Your task to perform on an android device: Clear the cart on bestbuy. Image 0: 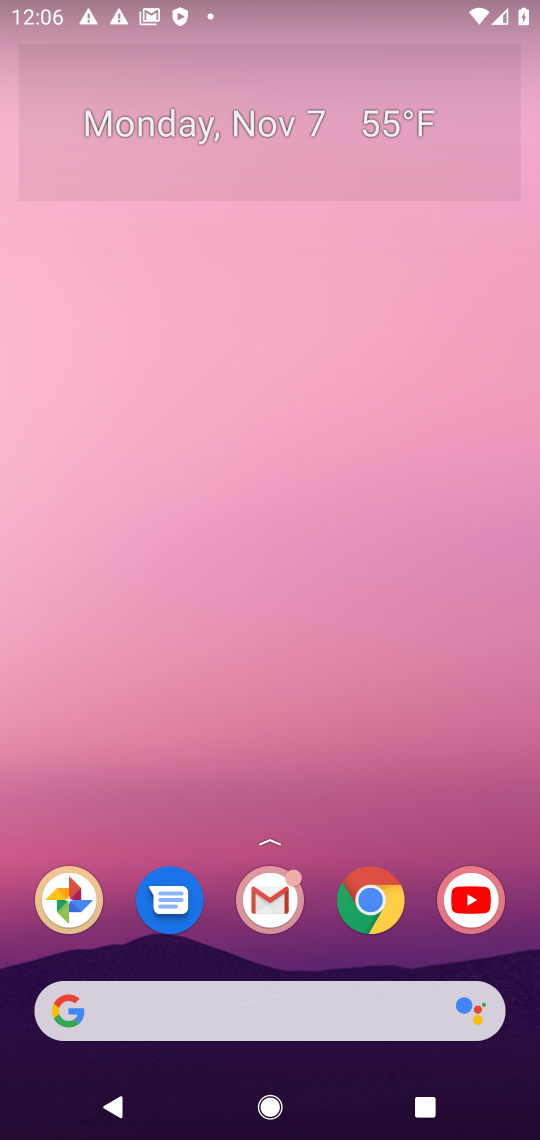
Step 0: click (278, 1010)
Your task to perform on an android device: Clear the cart on bestbuy. Image 1: 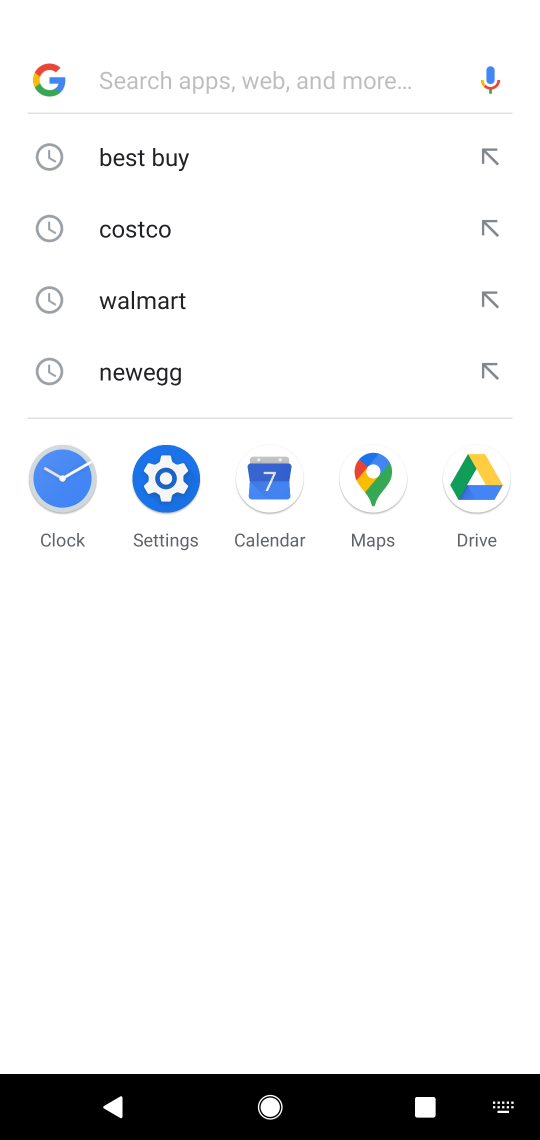
Step 1: click (146, 162)
Your task to perform on an android device: Clear the cart on bestbuy. Image 2: 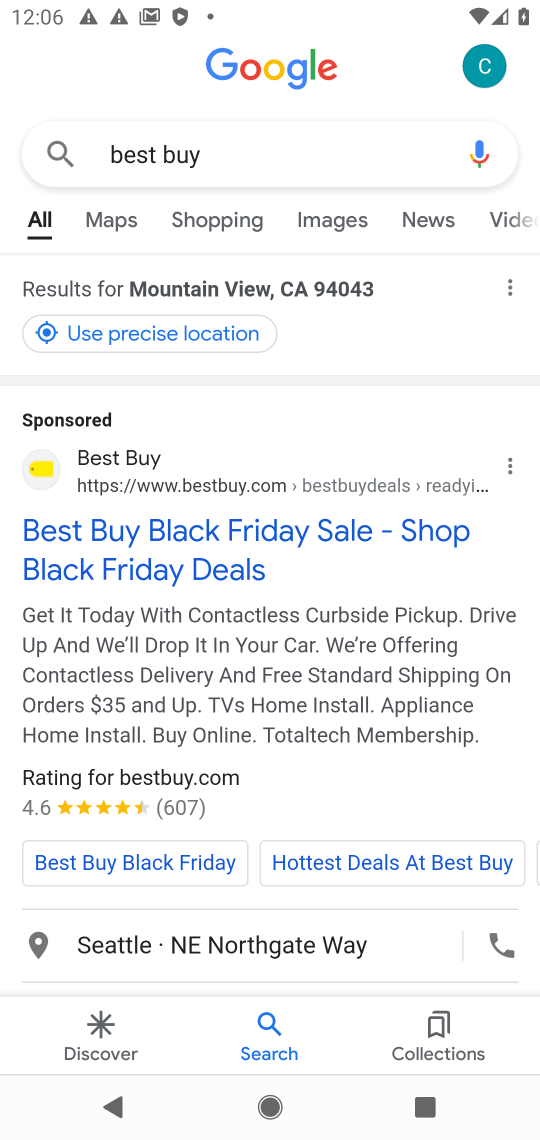
Step 2: click (225, 527)
Your task to perform on an android device: Clear the cart on bestbuy. Image 3: 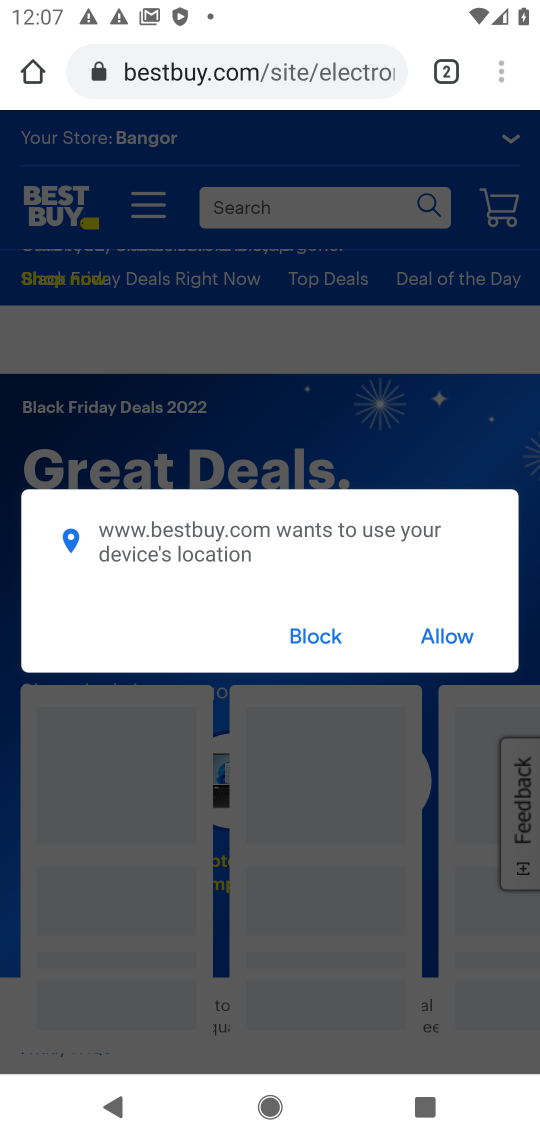
Step 3: task complete